Your task to perform on an android device: Open Google Maps and go to "Timeline" Image 0: 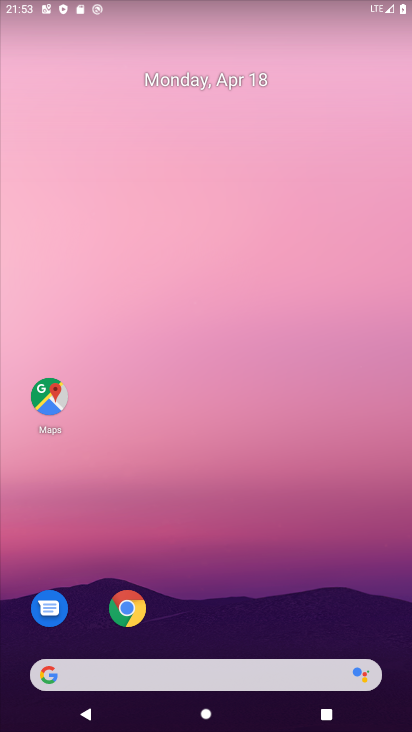
Step 0: click (56, 395)
Your task to perform on an android device: Open Google Maps and go to "Timeline" Image 1: 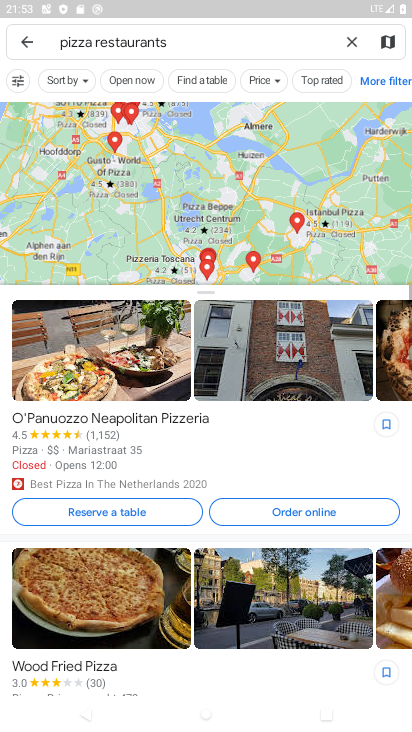
Step 1: click (29, 41)
Your task to perform on an android device: Open Google Maps and go to "Timeline" Image 2: 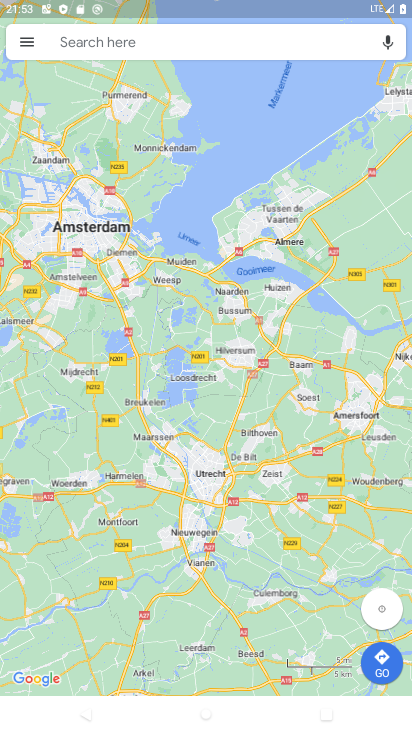
Step 2: click (27, 39)
Your task to perform on an android device: Open Google Maps and go to "Timeline" Image 3: 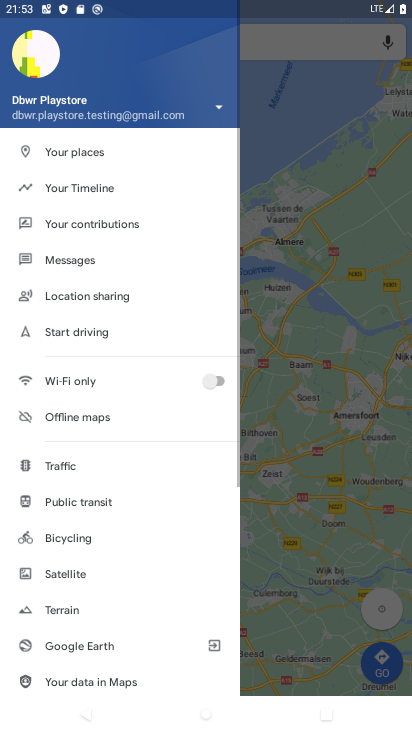
Step 3: click (99, 194)
Your task to perform on an android device: Open Google Maps and go to "Timeline" Image 4: 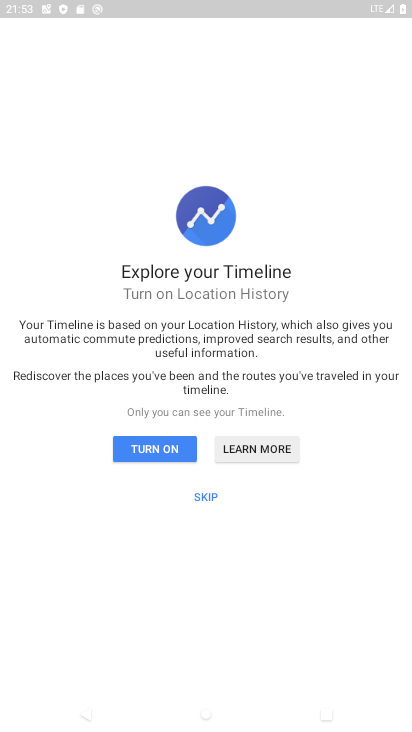
Step 4: click (165, 445)
Your task to perform on an android device: Open Google Maps and go to "Timeline" Image 5: 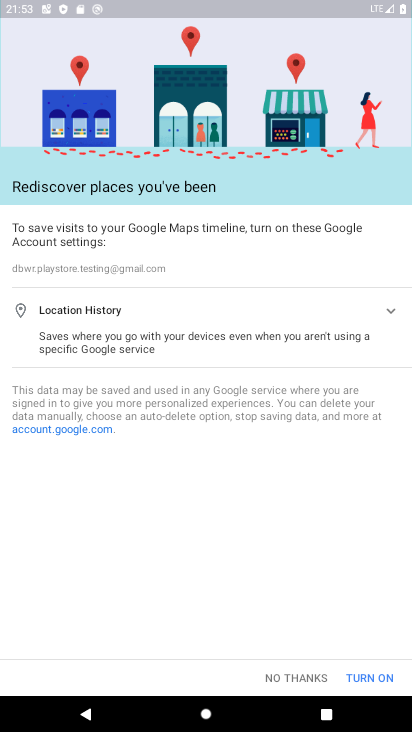
Step 5: click (376, 672)
Your task to perform on an android device: Open Google Maps and go to "Timeline" Image 6: 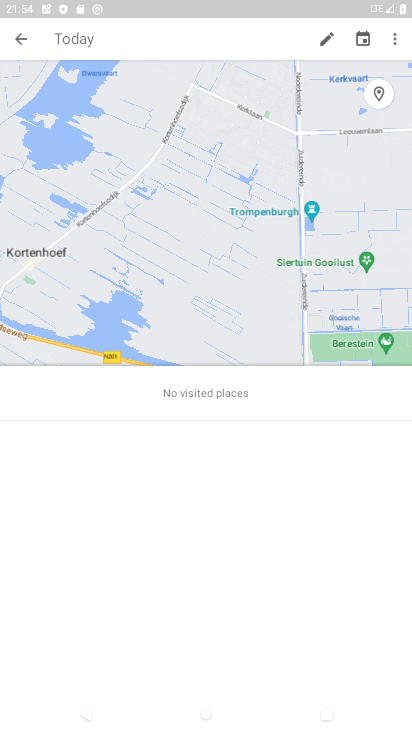
Step 6: task complete